Your task to perform on an android device: stop showing notifications on the lock screen Image 0: 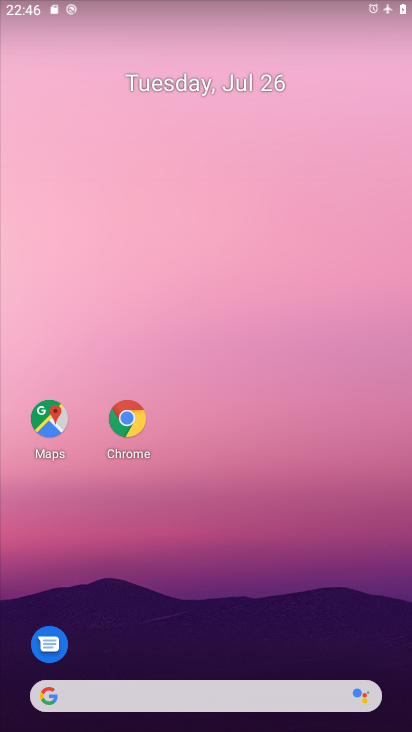
Step 0: drag from (189, 643) to (216, 280)
Your task to perform on an android device: stop showing notifications on the lock screen Image 1: 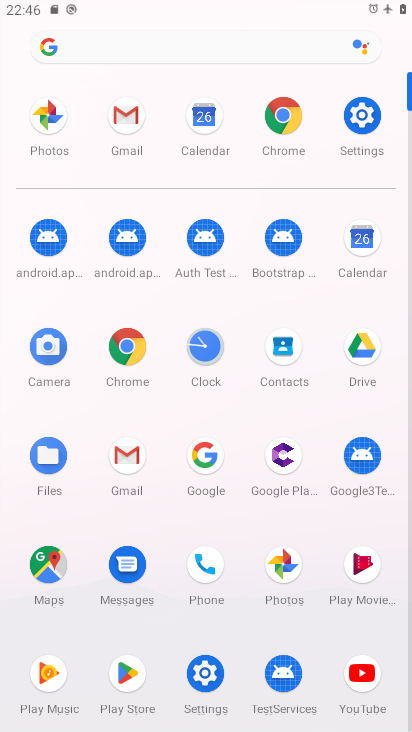
Step 1: click (358, 136)
Your task to perform on an android device: stop showing notifications on the lock screen Image 2: 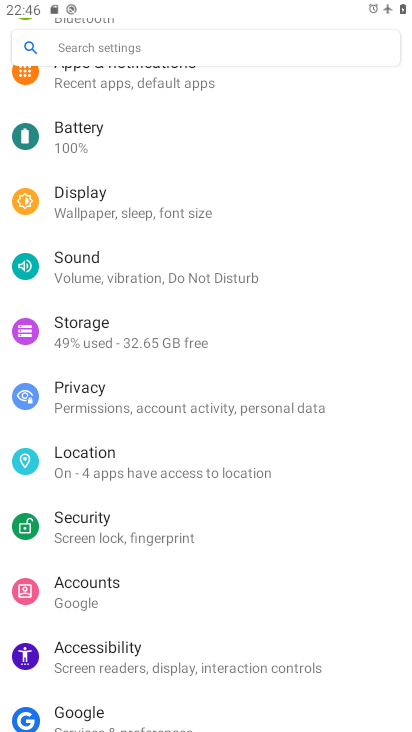
Step 2: drag from (191, 117) to (137, 586)
Your task to perform on an android device: stop showing notifications on the lock screen Image 3: 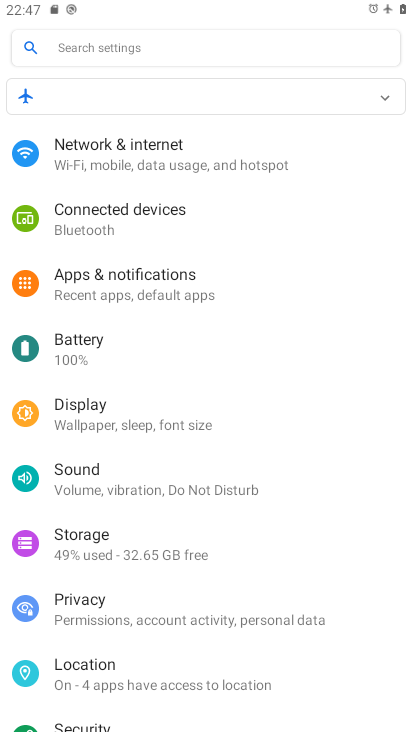
Step 3: click (136, 277)
Your task to perform on an android device: stop showing notifications on the lock screen Image 4: 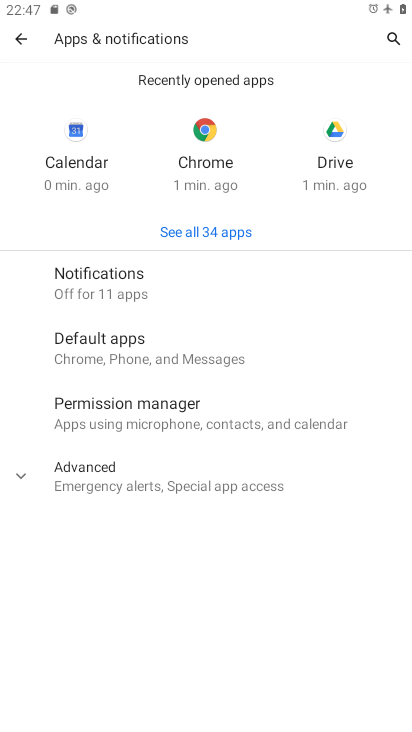
Step 4: click (121, 296)
Your task to perform on an android device: stop showing notifications on the lock screen Image 5: 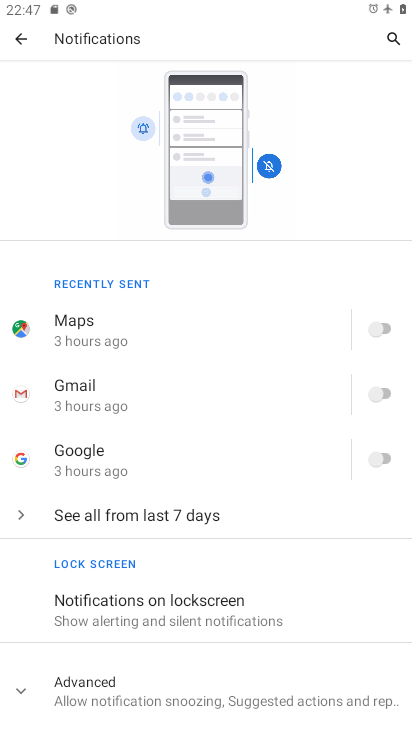
Step 5: click (95, 610)
Your task to perform on an android device: stop showing notifications on the lock screen Image 6: 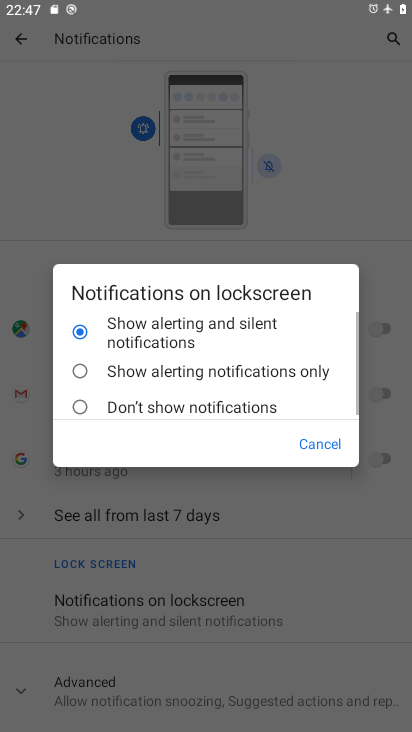
Step 6: click (100, 393)
Your task to perform on an android device: stop showing notifications on the lock screen Image 7: 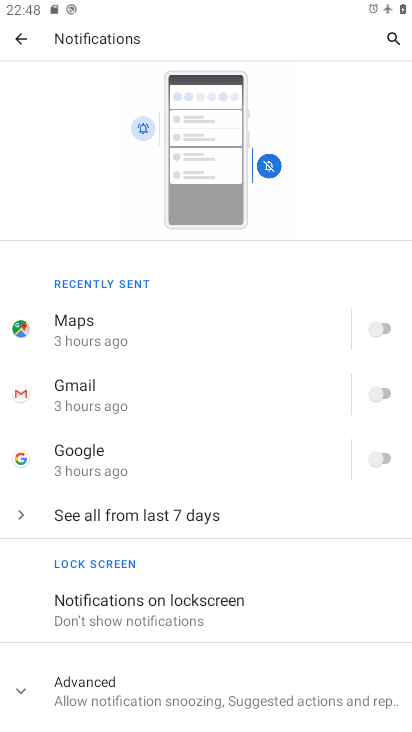
Step 7: task complete